Your task to perform on an android device: turn off improve location accuracy Image 0: 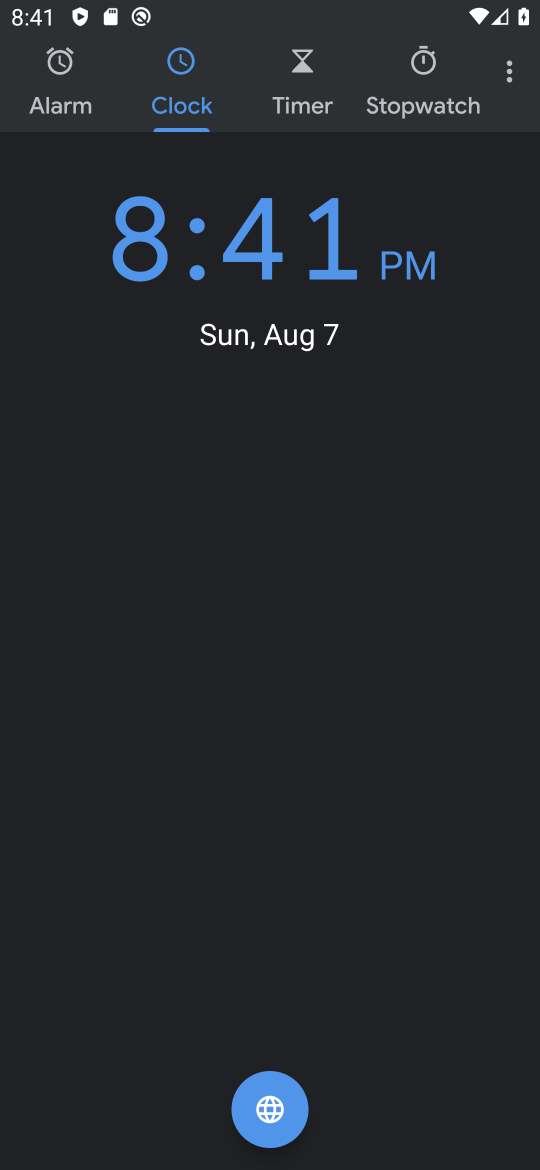
Step 0: press home button
Your task to perform on an android device: turn off improve location accuracy Image 1: 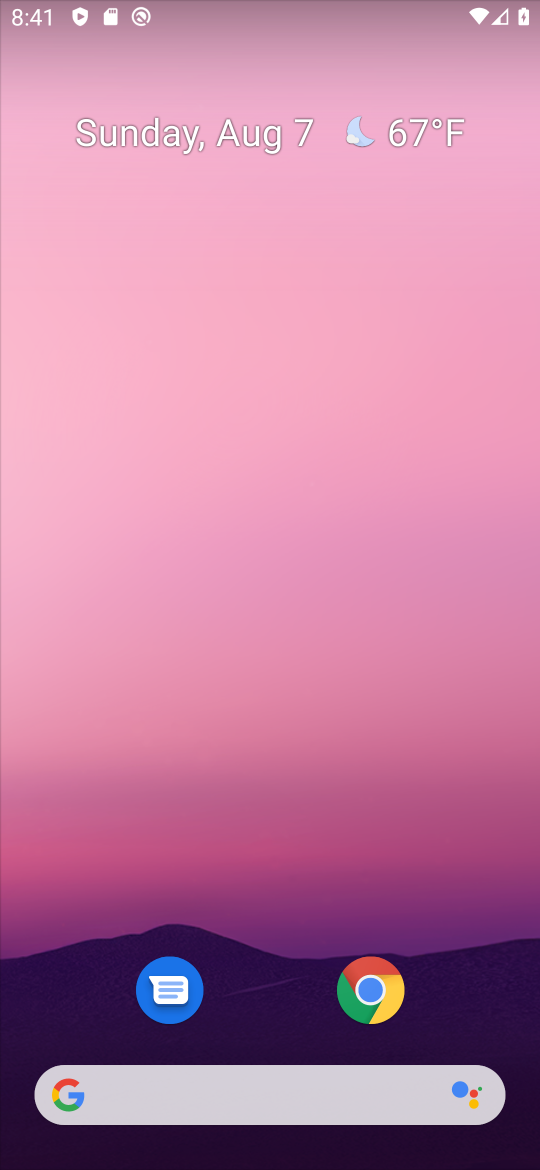
Step 1: drag from (280, 986) to (214, 0)
Your task to perform on an android device: turn off improve location accuracy Image 2: 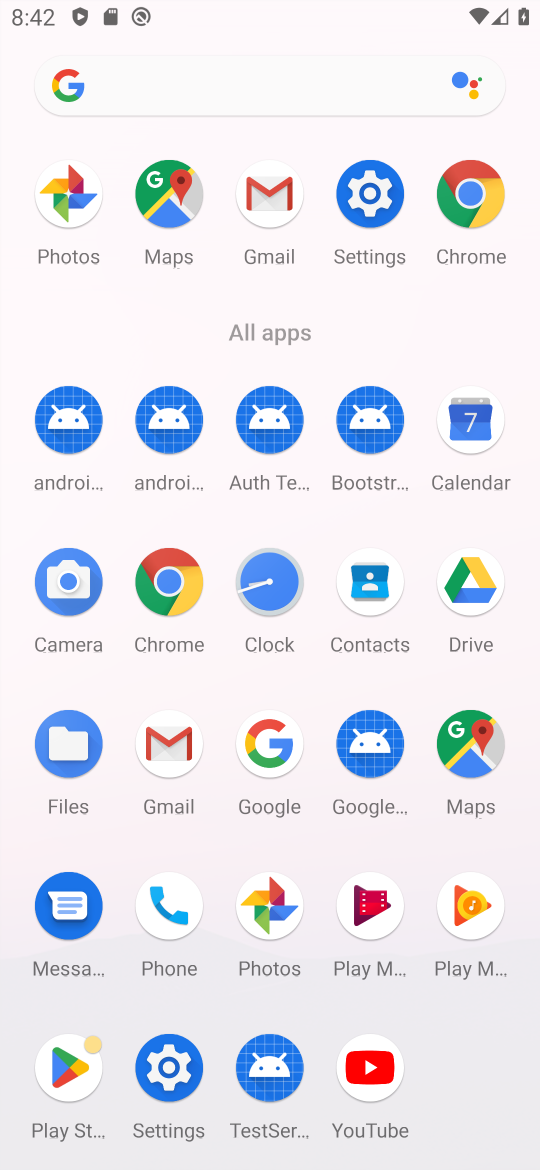
Step 2: click (376, 193)
Your task to perform on an android device: turn off improve location accuracy Image 3: 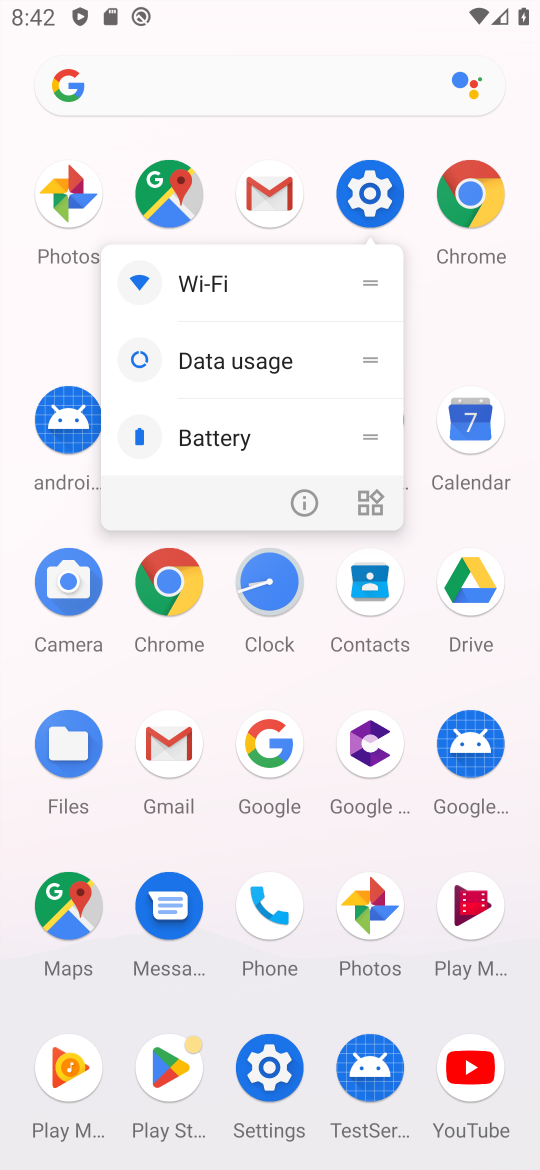
Step 3: click (376, 201)
Your task to perform on an android device: turn off improve location accuracy Image 4: 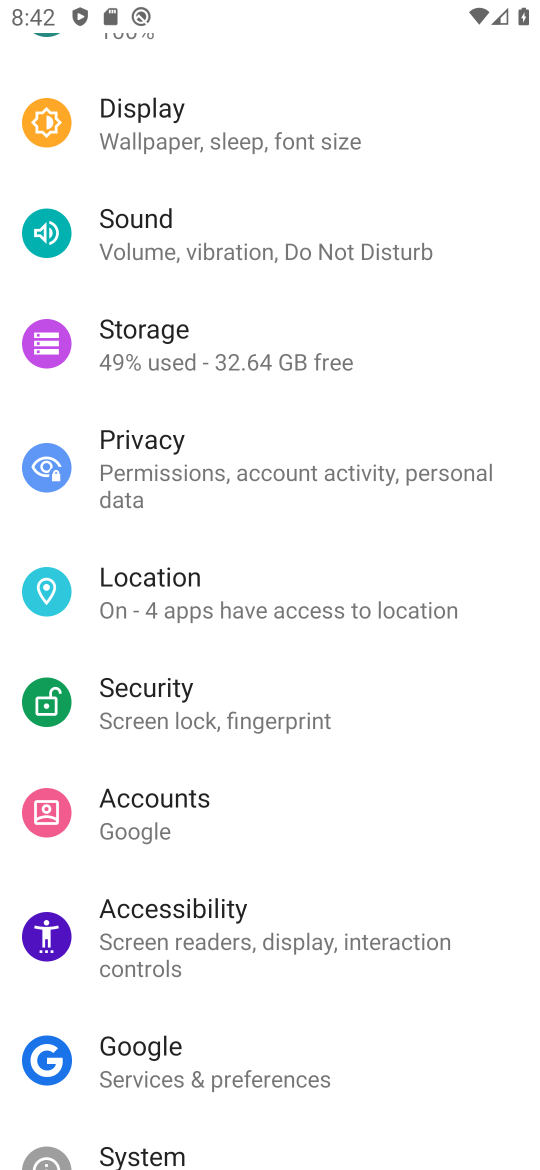
Step 4: click (355, 589)
Your task to perform on an android device: turn off improve location accuracy Image 5: 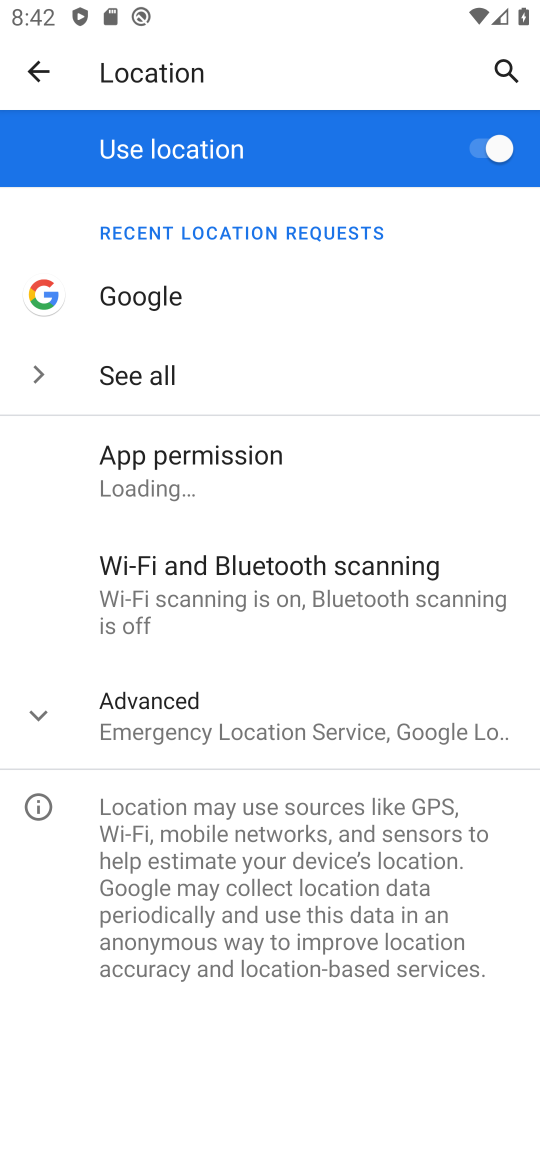
Step 5: click (37, 710)
Your task to perform on an android device: turn off improve location accuracy Image 6: 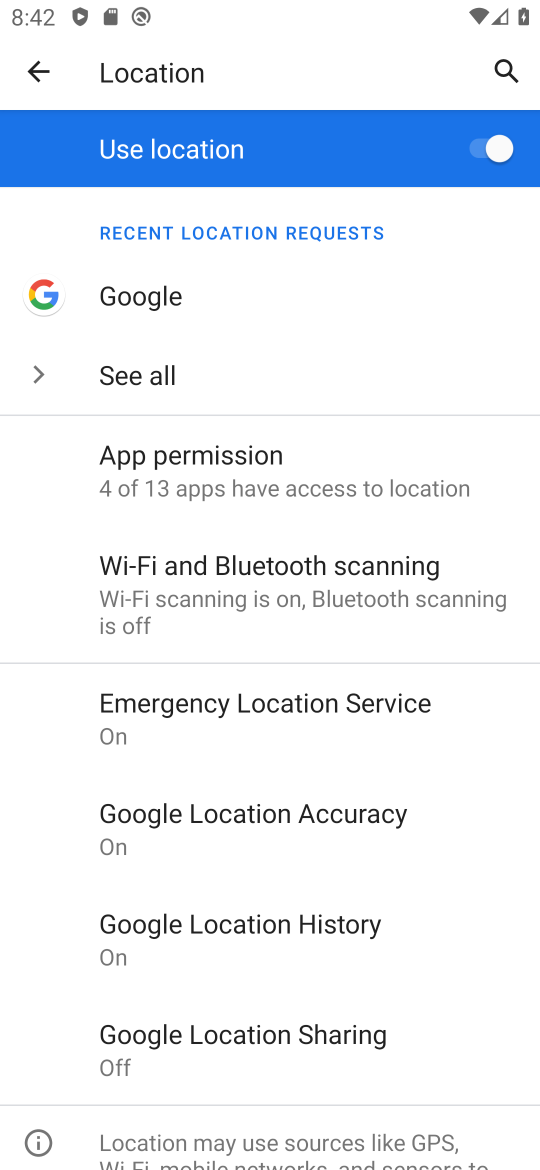
Step 6: click (230, 821)
Your task to perform on an android device: turn off improve location accuracy Image 7: 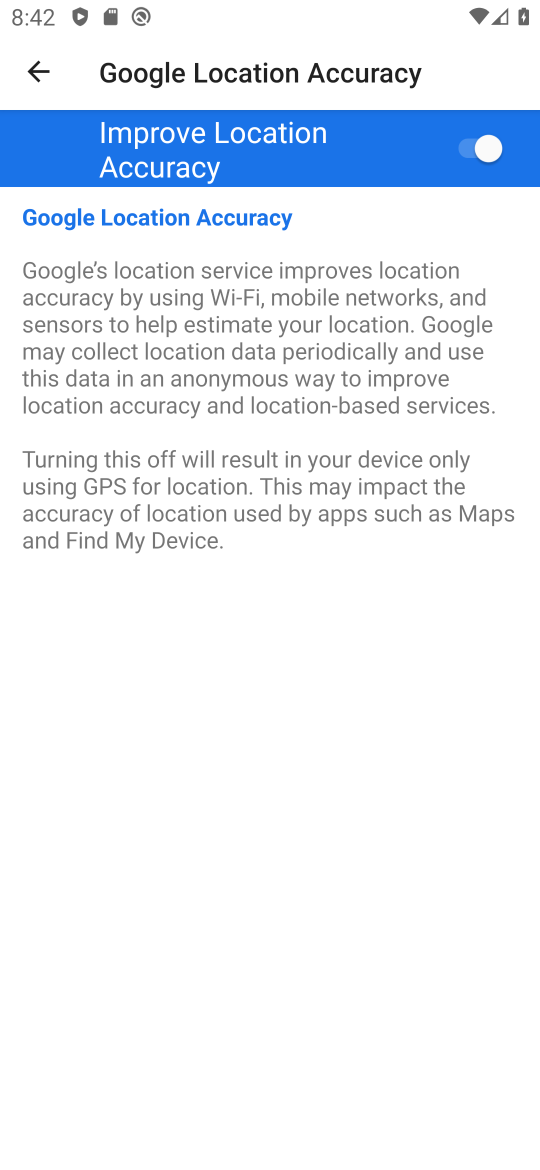
Step 7: click (483, 145)
Your task to perform on an android device: turn off improve location accuracy Image 8: 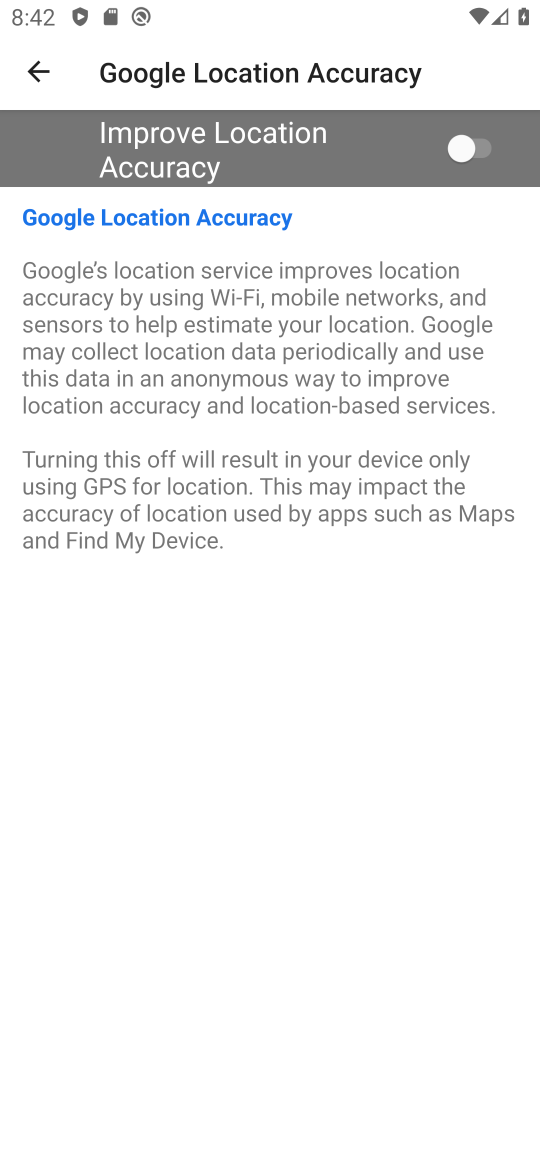
Step 8: task complete